Your task to perform on an android device: Search for sushi restaurants on Maps Image 0: 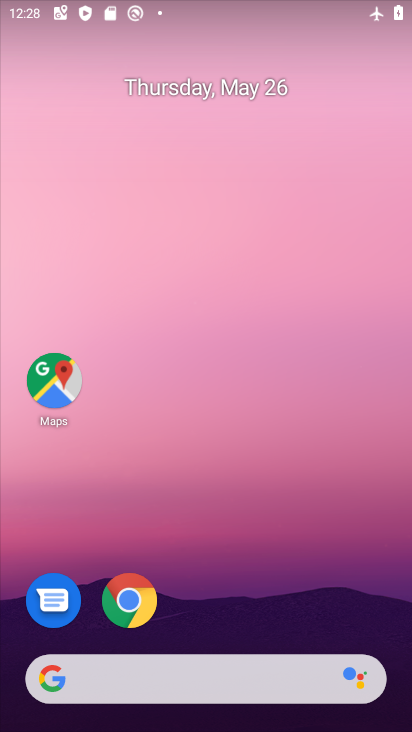
Step 0: click (46, 372)
Your task to perform on an android device: Search for sushi restaurants on Maps Image 1: 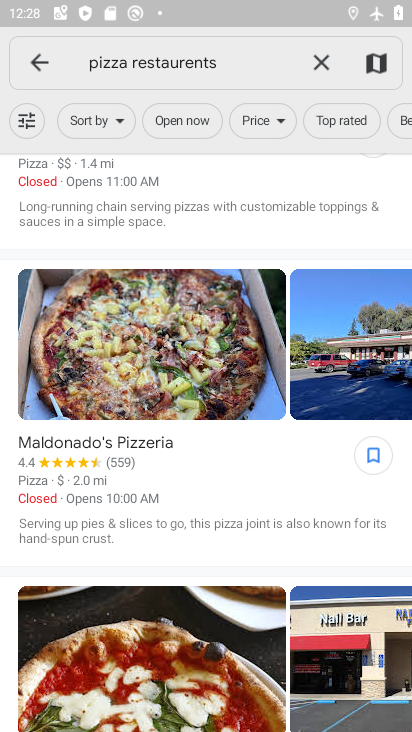
Step 1: click (315, 56)
Your task to perform on an android device: Search for sushi restaurants on Maps Image 2: 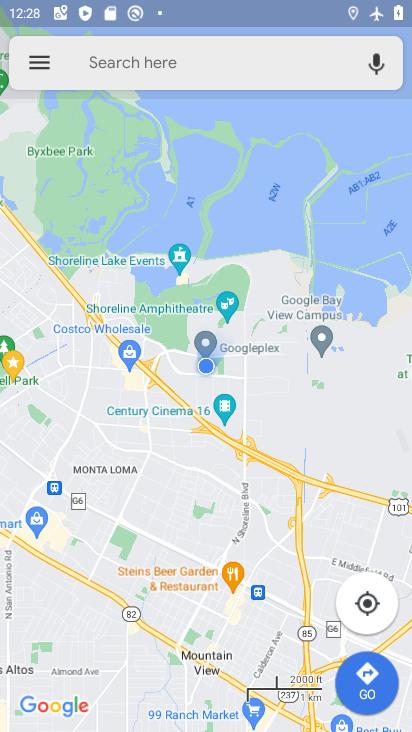
Step 2: click (235, 68)
Your task to perform on an android device: Search for sushi restaurants on Maps Image 3: 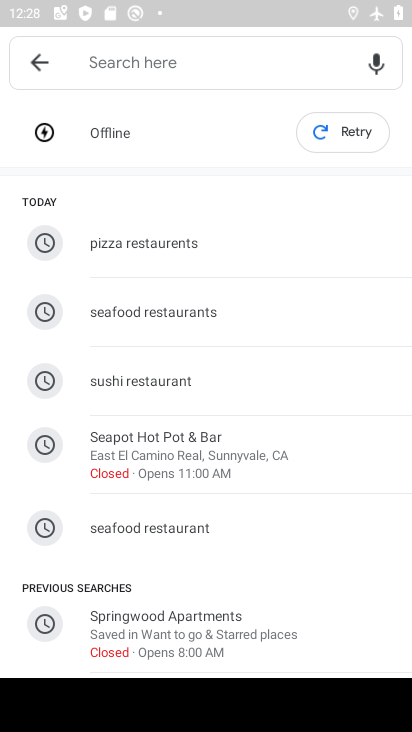
Step 3: type "sushi restaurants"
Your task to perform on an android device: Search for sushi restaurants on Maps Image 4: 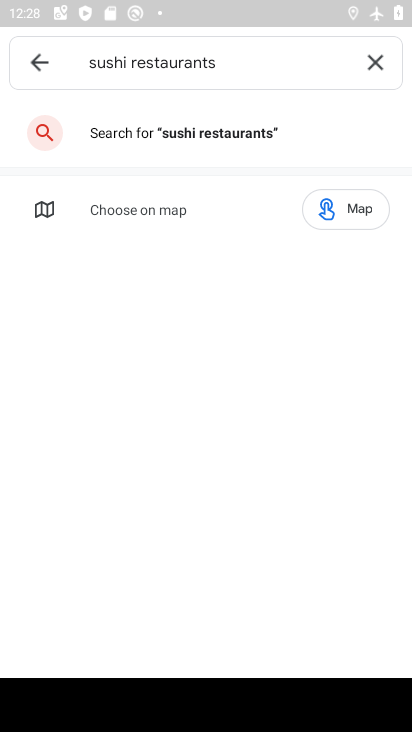
Step 4: click (257, 109)
Your task to perform on an android device: Search for sushi restaurants on Maps Image 5: 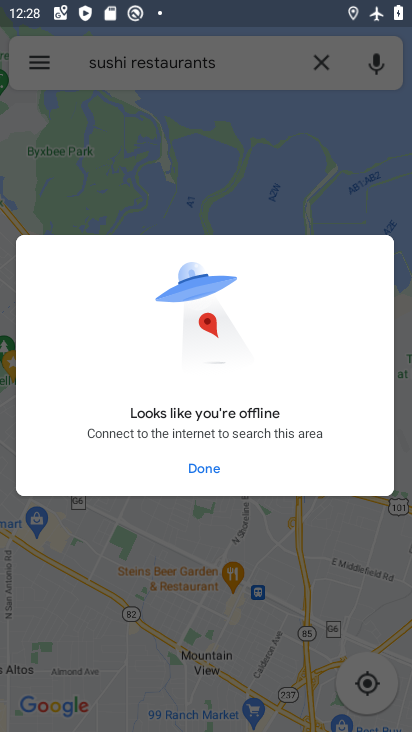
Step 5: task complete